Your task to perform on an android device: uninstall "Spotify" Image 0: 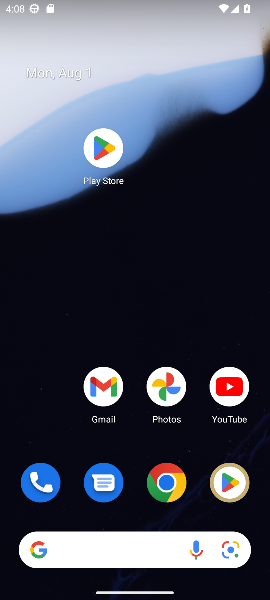
Step 0: click (102, 154)
Your task to perform on an android device: uninstall "Spotify" Image 1: 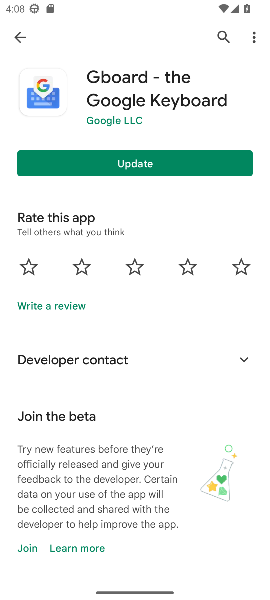
Step 1: click (217, 30)
Your task to perform on an android device: uninstall "Spotify" Image 2: 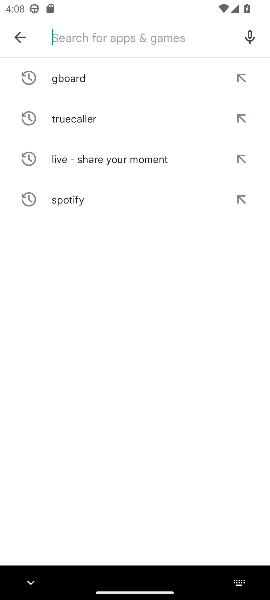
Step 2: type "Spotify"
Your task to perform on an android device: uninstall "Spotify" Image 3: 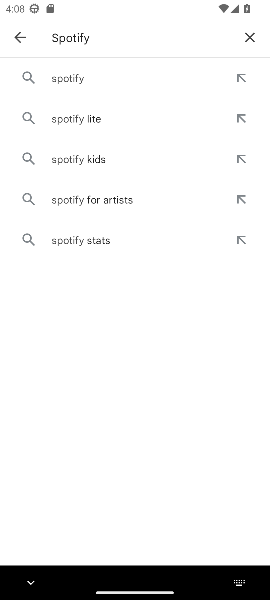
Step 3: click (71, 80)
Your task to perform on an android device: uninstall "Spotify" Image 4: 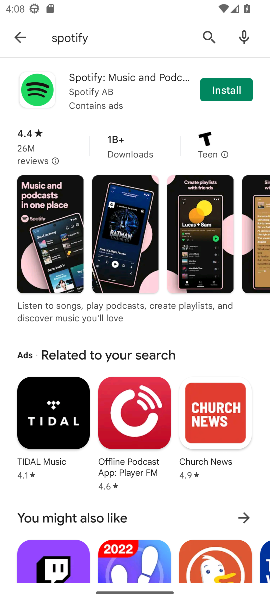
Step 4: task complete